Your task to perform on an android device: Go to Maps Image 0: 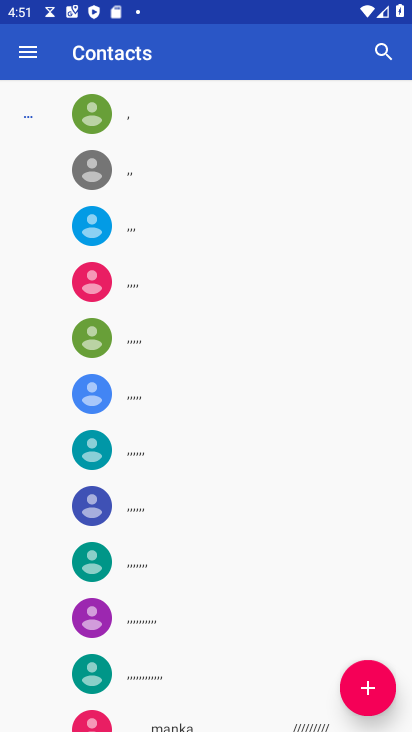
Step 0: press home button
Your task to perform on an android device: Go to Maps Image 1: 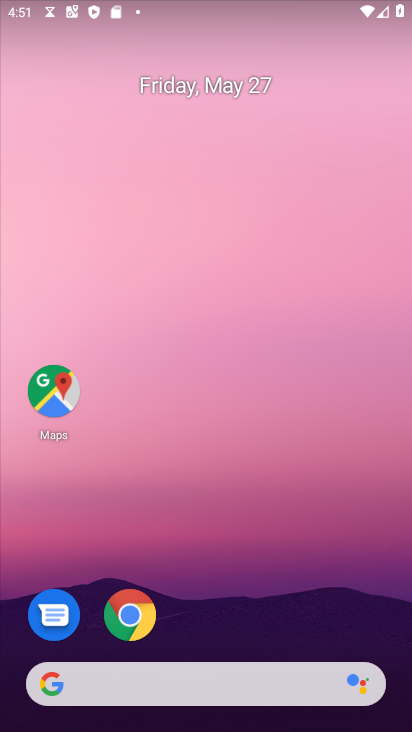
Step 1: click (59, 381)
Your task to perform on an android device: Go to Maps Image 2: 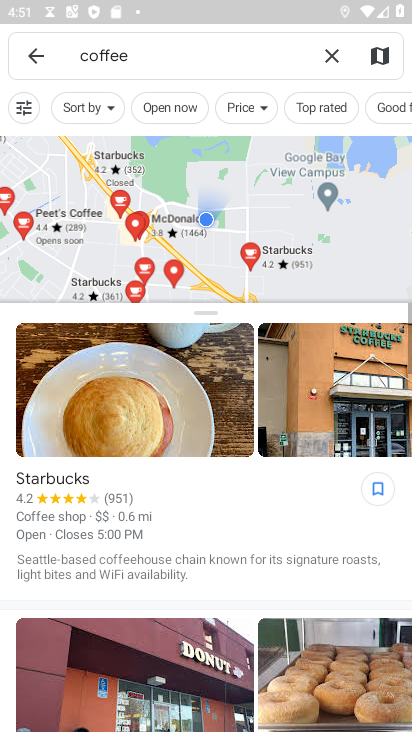
Step 2: task complete